Your task to perform on an android device: toggle notification dots Image 0: 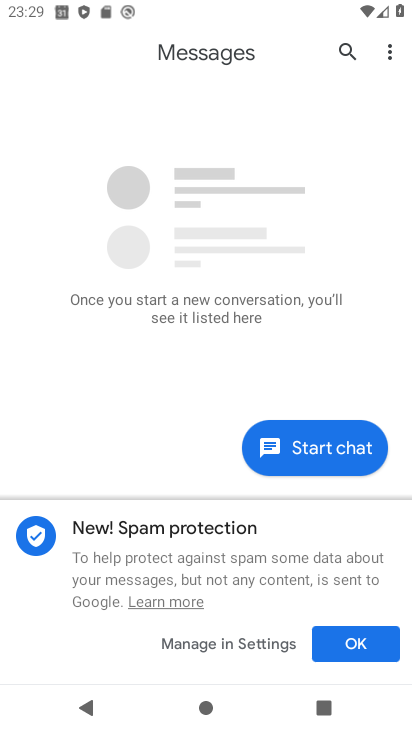
Step 0: press back button
Your task to perform on an android device: toggle notification dots Image 1: 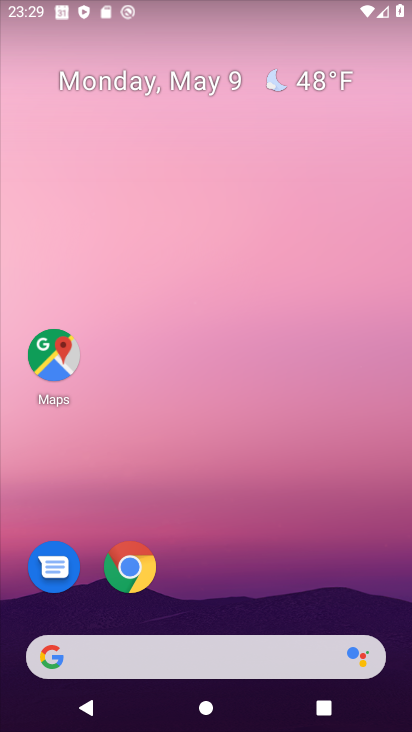
Step 1: drag from (252, 593) to (187, 23)
Your task to perform on an android device: toggle notification dots Image 2: 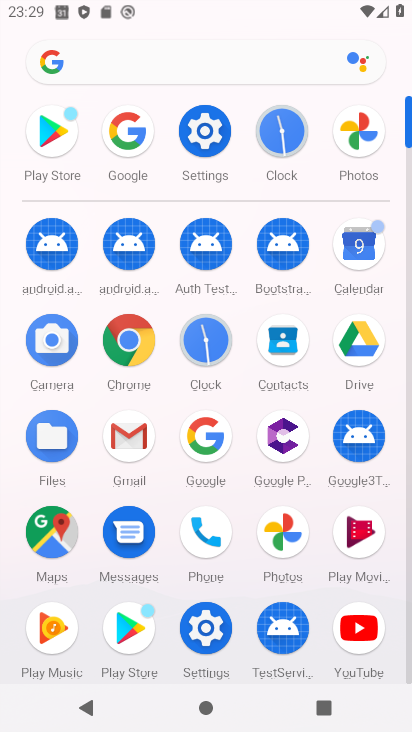
Step 2: click (203, 131)
Your task to perform on an android device: toggle notification dots Image 3: 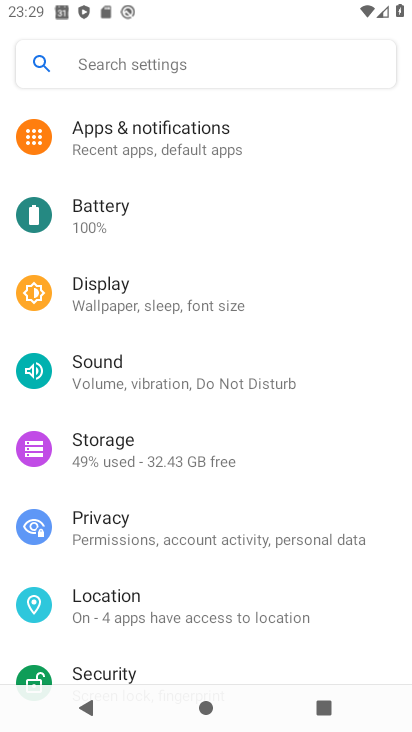
Step 3: click (169, 124)
Your task to perform on an android device: toggle notification dots Image 4: 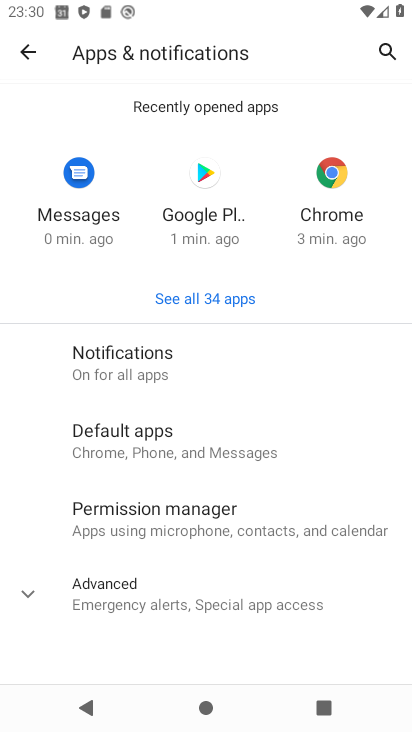
Step 4: click (124, 356)
Your task to perform on an android device: toggle notification dots Image 5: 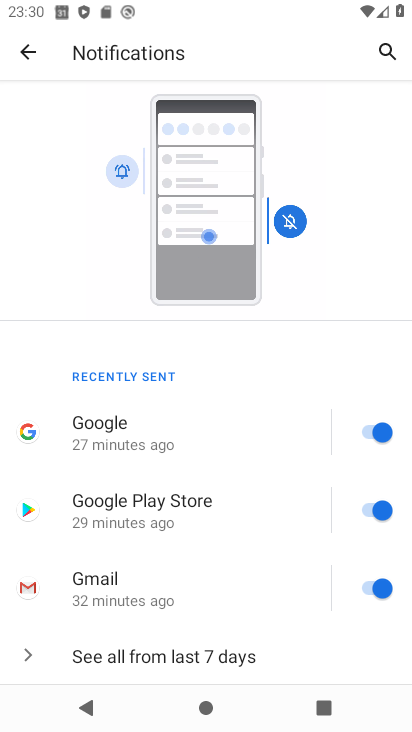
Step 5: drag from (153, 616) to (214, 364)
Your task to perform on an android device: toggle notification dots Image 6: 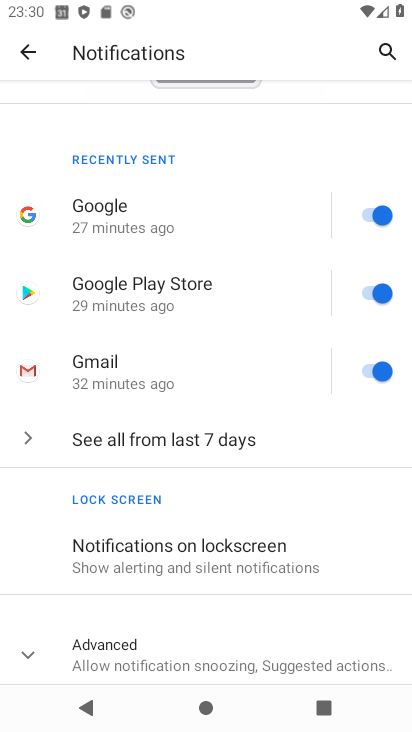
Step 6: drag from (186, 599) to (223, 469)
Your task to perform on an android device: toggle notification dots Image 7: 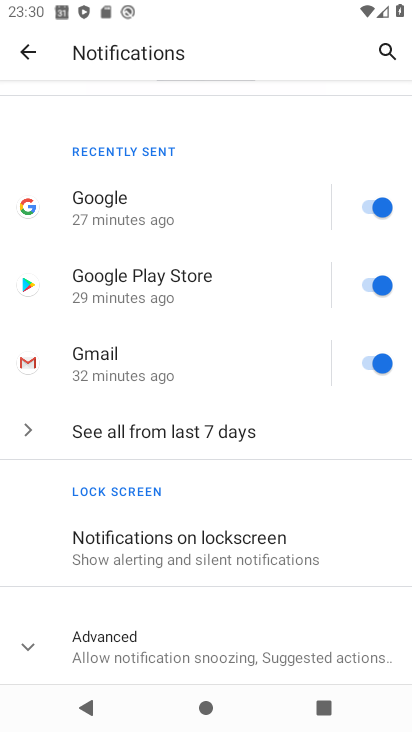
Step 7: click (129, 639)
Your task to perform on an android device: toggle notification dots Image 8: 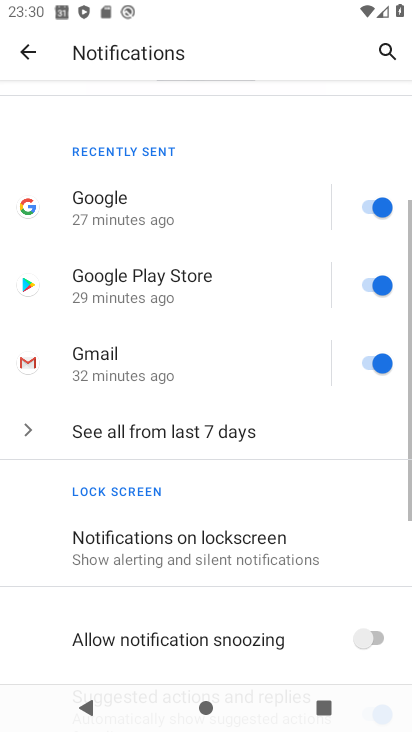
Step 8: drag from (136, 601) to (171, 403)
Your task to perform on an android device: toggle notification dots Image 9: 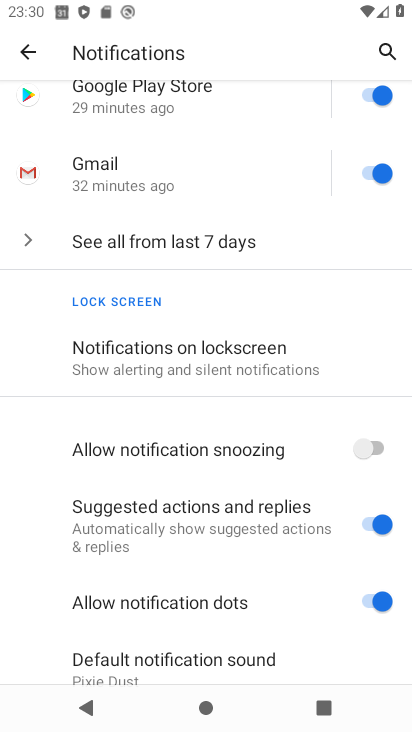
Step 9: click (366, 598)
Your task to perform on an android device: toggle notification dots Image 10: 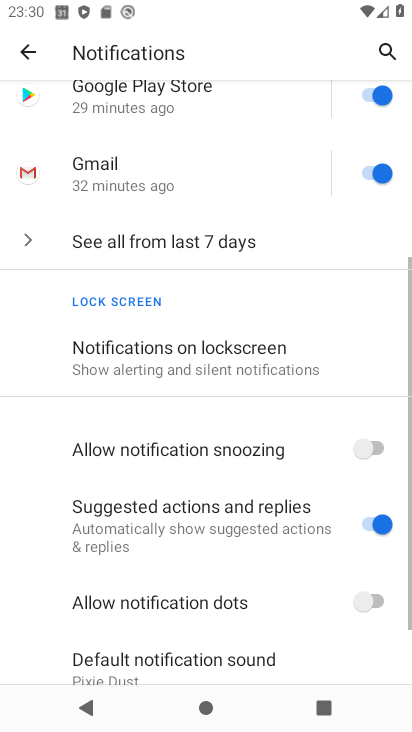
Step 10: task complete